Your task to perform on an android device: Open the calendar and show me this week's events? Image 0: 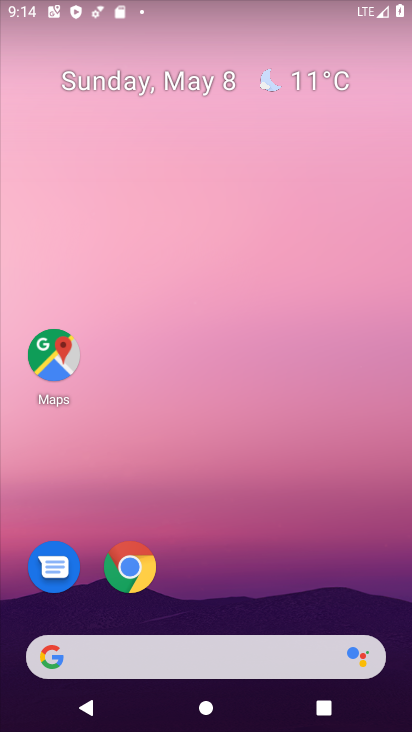
Step 0: drag from (237, 564) to (292, 18)
Your task to perform on an android device: Open the calendar and show me this week's events? Image 1: 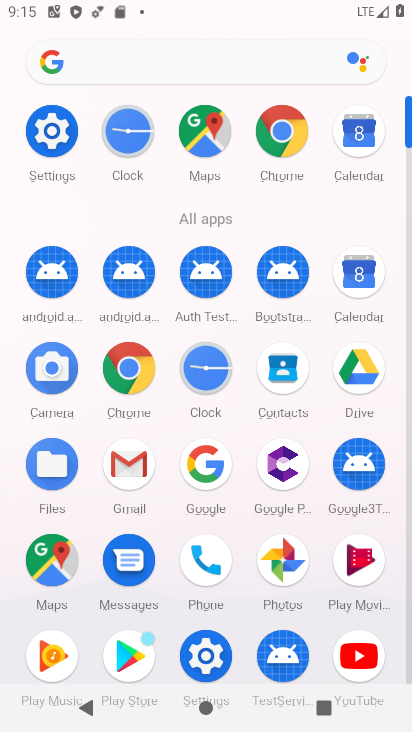
Step 1: click (356, 139)
Your task to perform on an android device: Open the calendar and show me this week's events? Image 2: 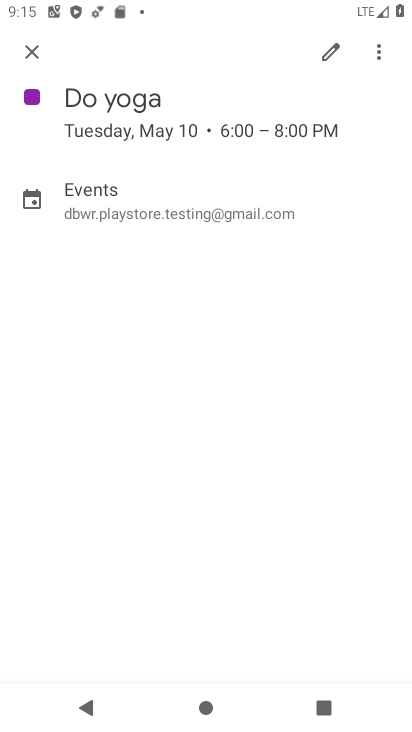
Step 2: click (29, 53)
Your task to perform on an android device: Open the calendar and show me this week's events? Image 3: 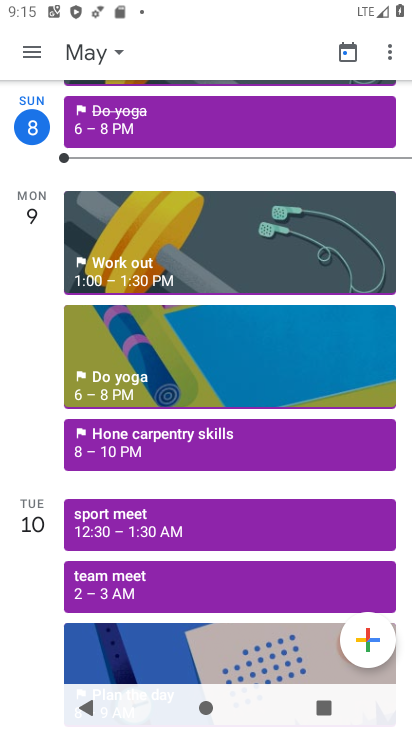
Step 3: drag from (229, 600) to (323, 28)
Your task to perform on an android device: Open the calendar and show me this week's events? Image 4: 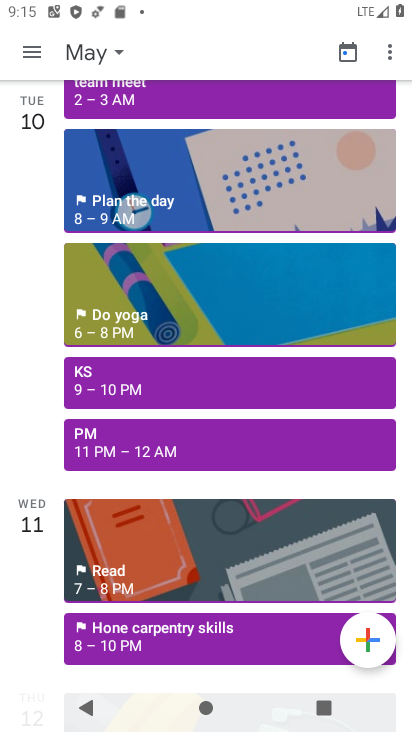
Step 4: drag from (223, 560) to (332, 2)
Your task to perform on an android device: Open the calendar and show me this week's events? Image 5: 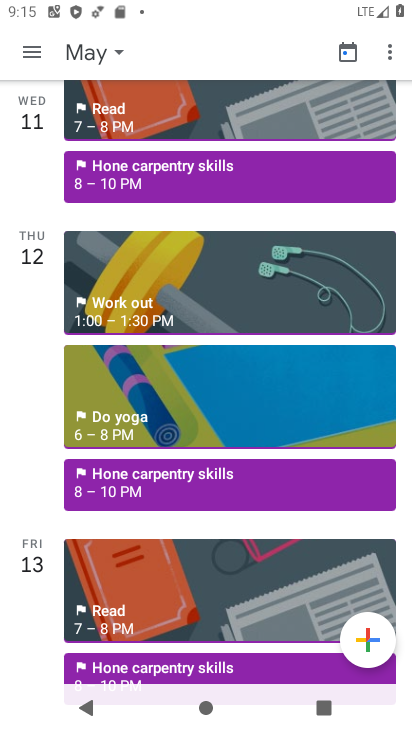
Step 5: click (163, 406)
Your task to perform on an android device: Open the calendar and show me this week's events? Image 6: 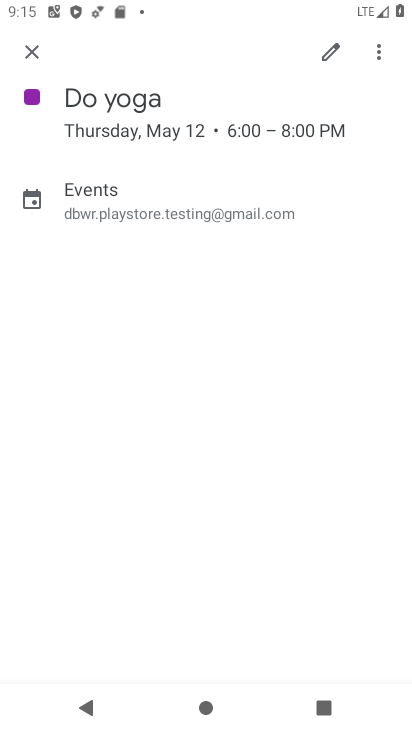
Step 6: task complete